Your task to perform on an android device: turn on the 24-hour format for clock Image 0: 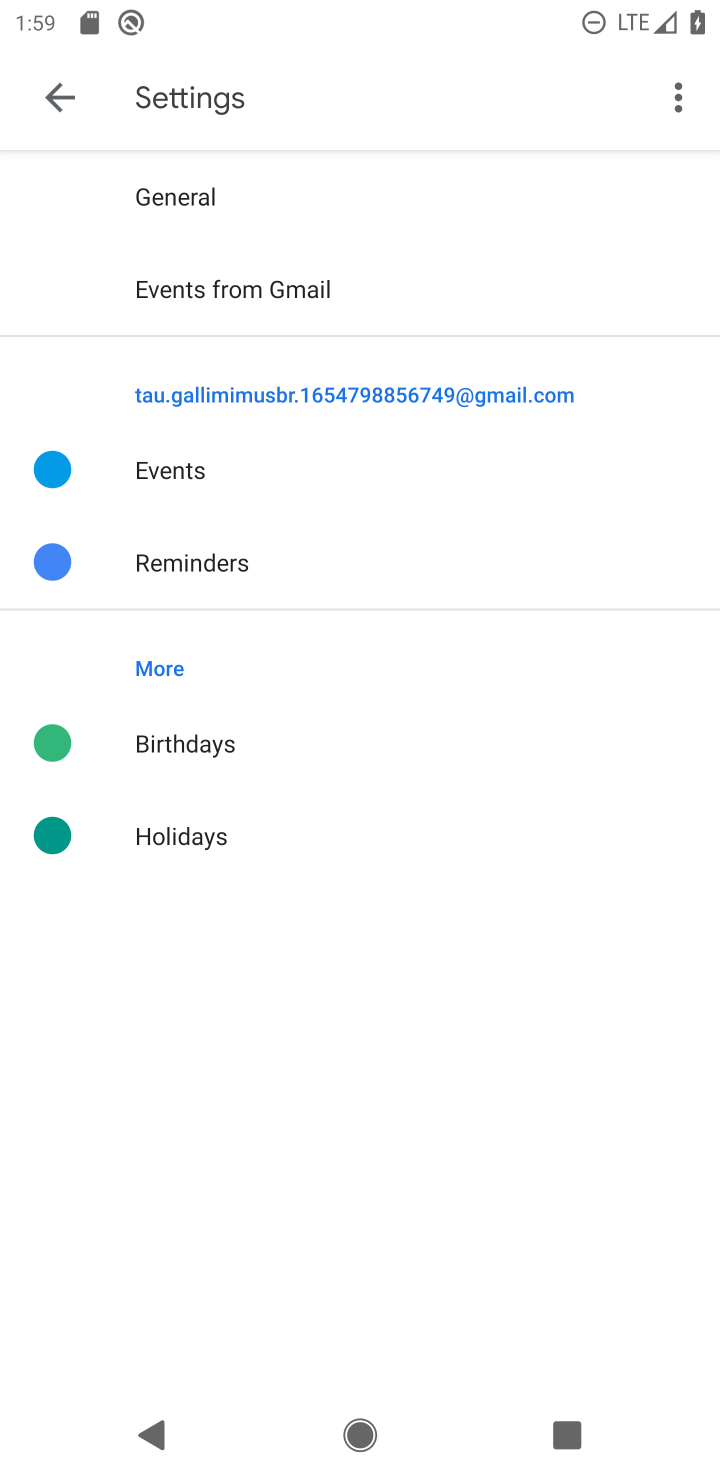
Step 0: press home button
Your task to perform on an android device: turn on the 24-hour format for clock Image 1: 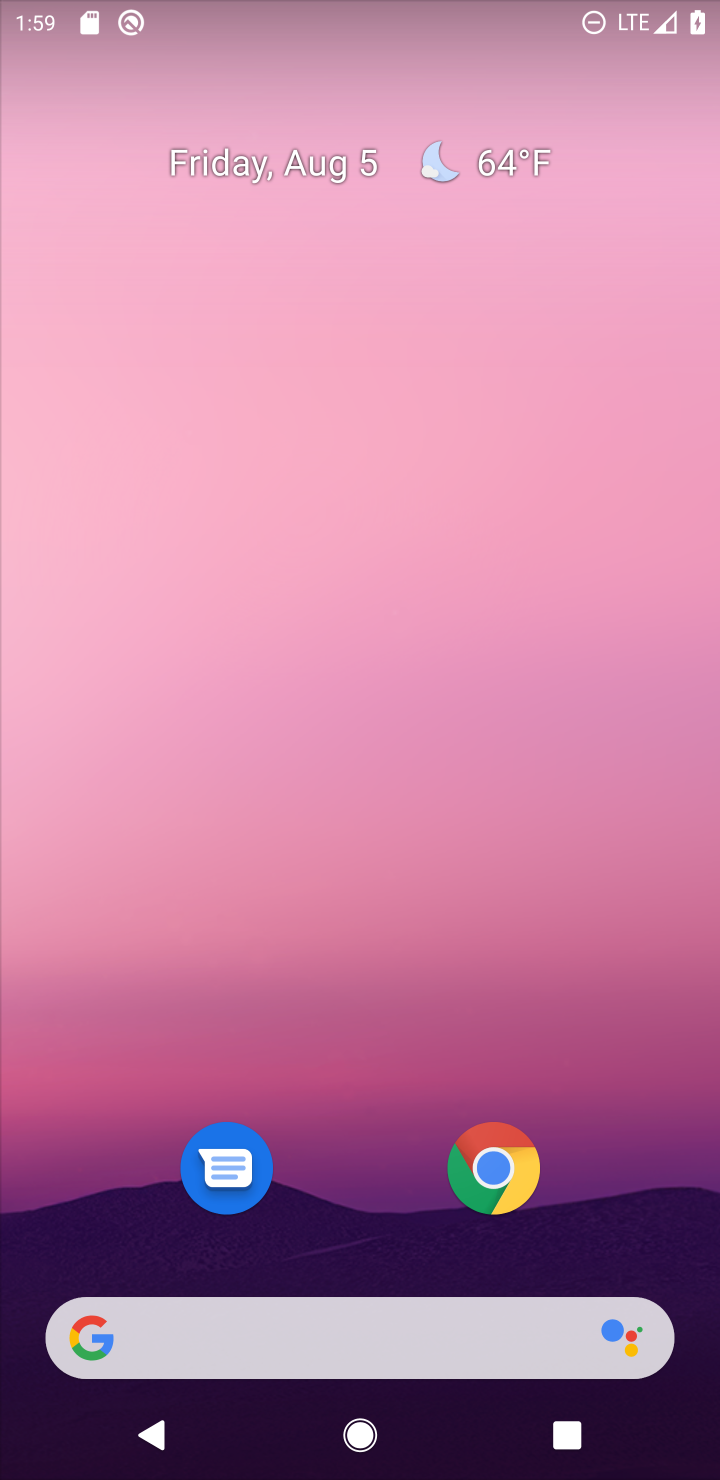
Step 1: drag from (687, 1213) to (270, 37)
Your task to perform on an android device: turn on the 24-hour format for clock Image 2: 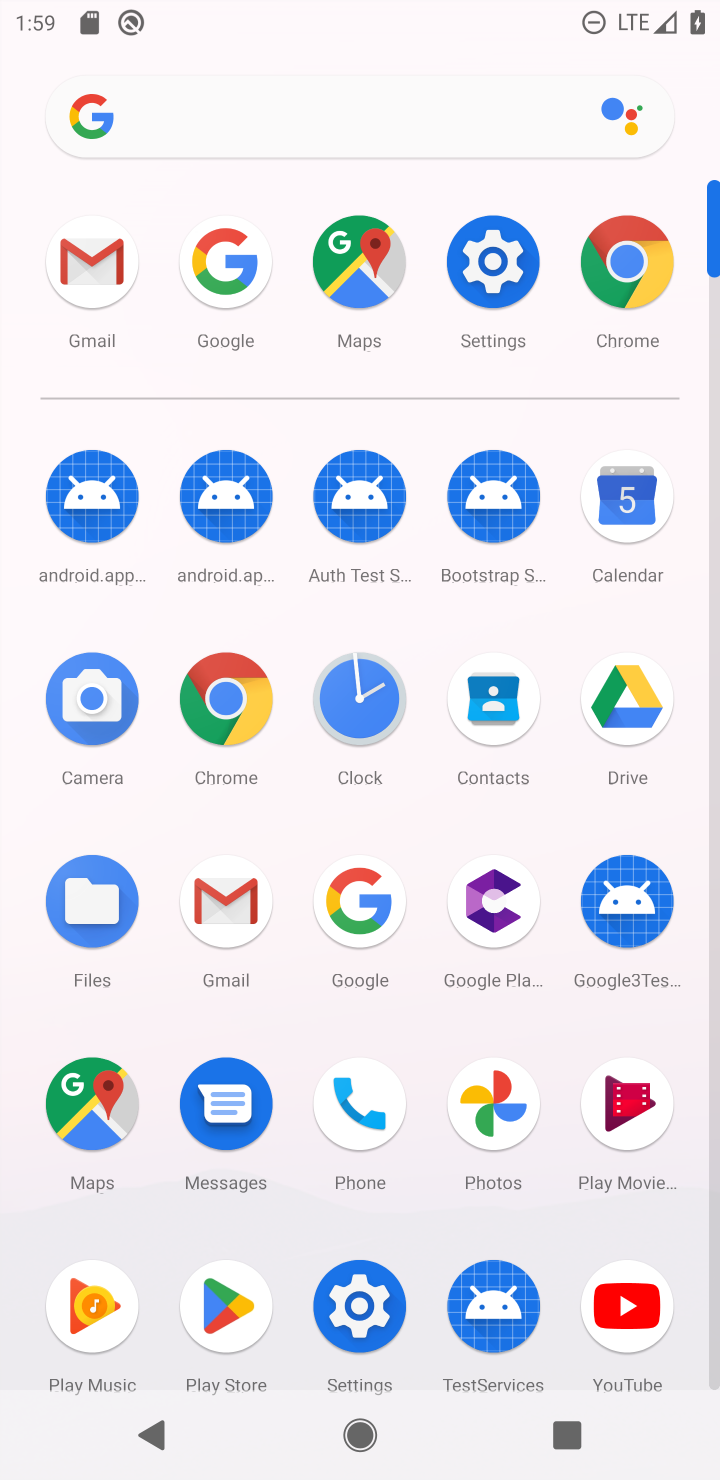
Step 2: click (336, 717)
Your task to perform on an android device: turn on the 24-hour format for clock Image 3: 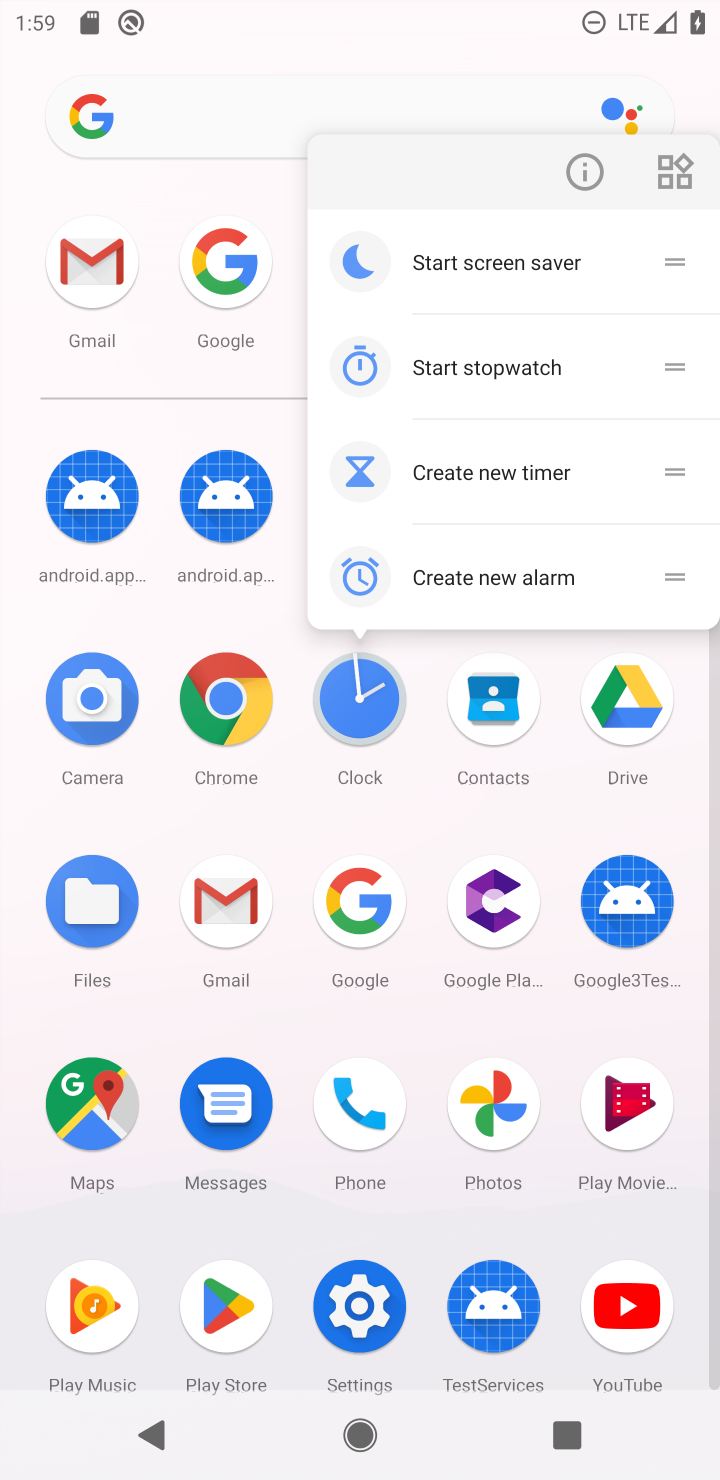
Step 3: click (367, 699)
Your task to perform on an android device: turn on the 24-hour format for clock Image 4: 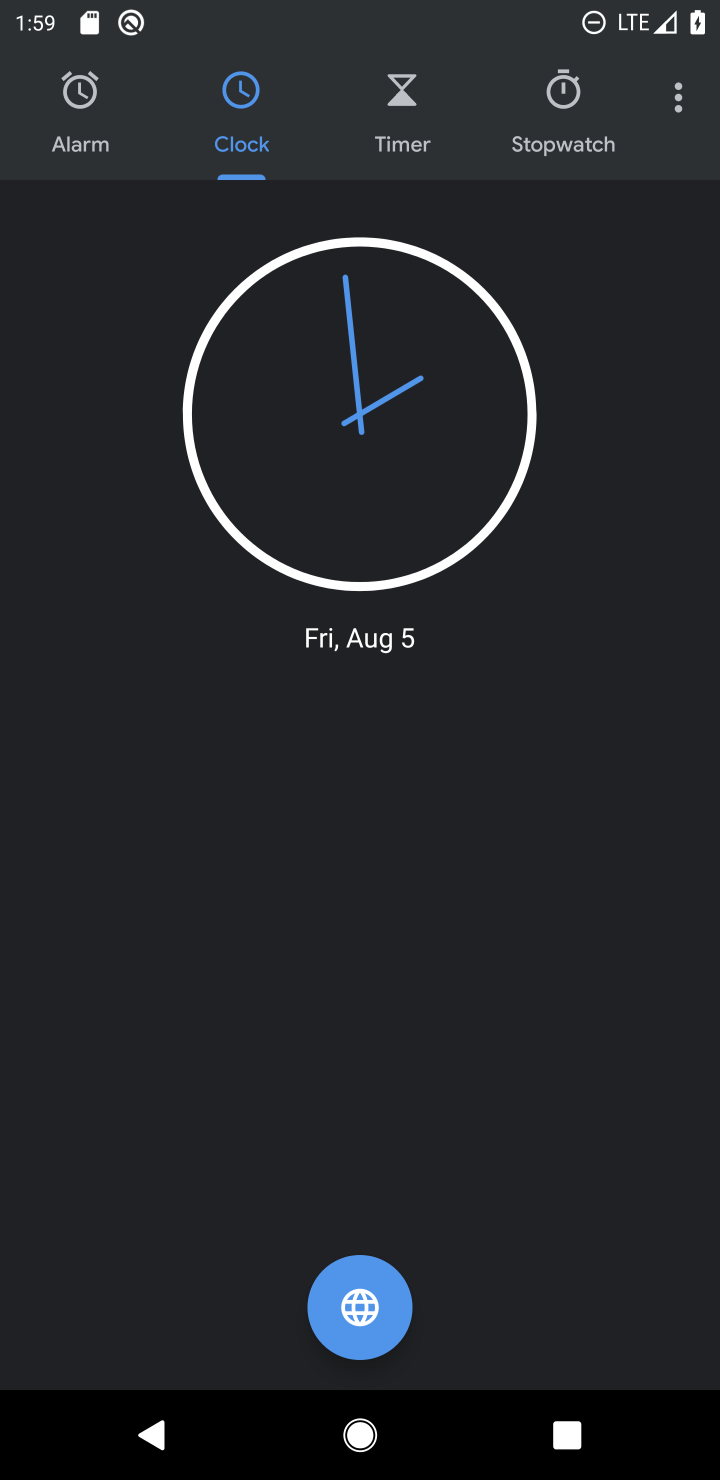
Step 4: click (682, 94)
Your task to perform on an android device: turn on the 24-hour format for clock Image 5: 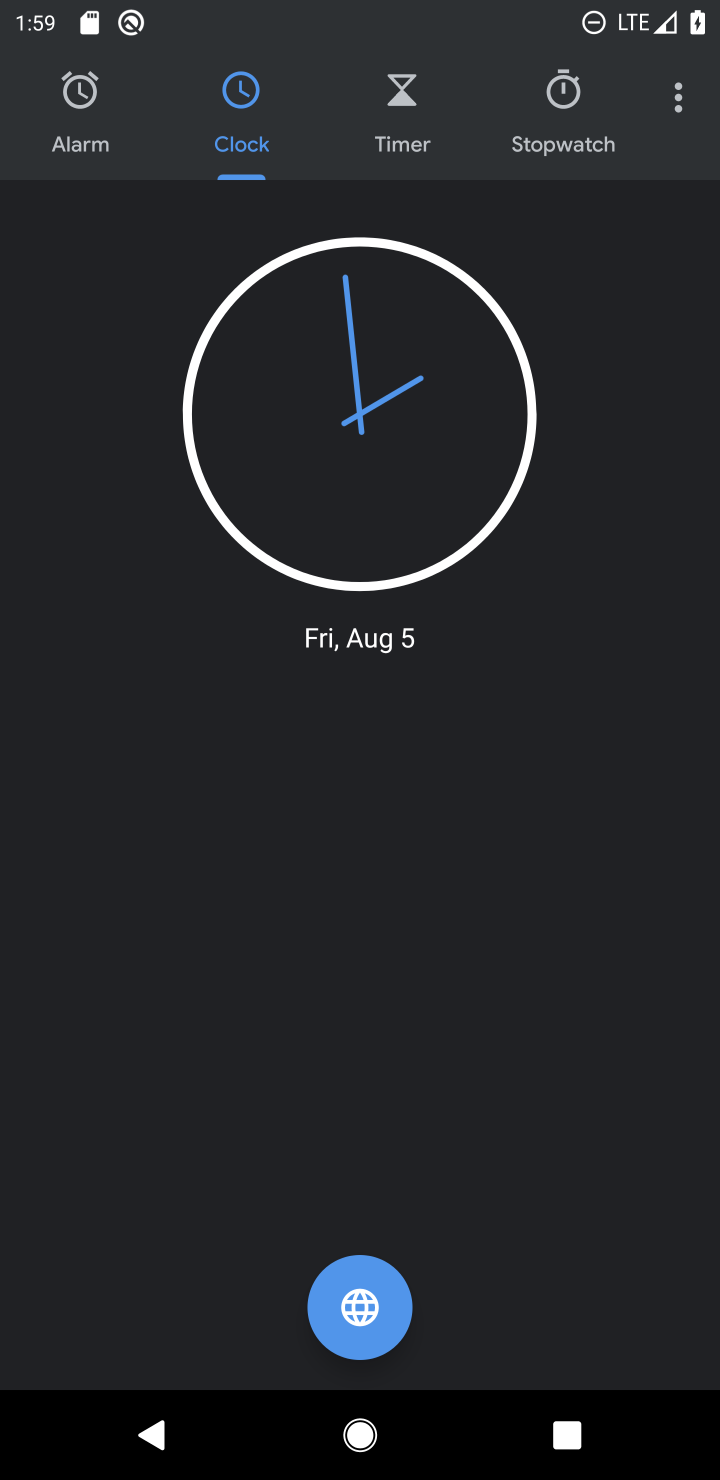
Step 5: click (662, 98)
Your task to perform on an android device: turn on the 24-hour format for clock Image 6: 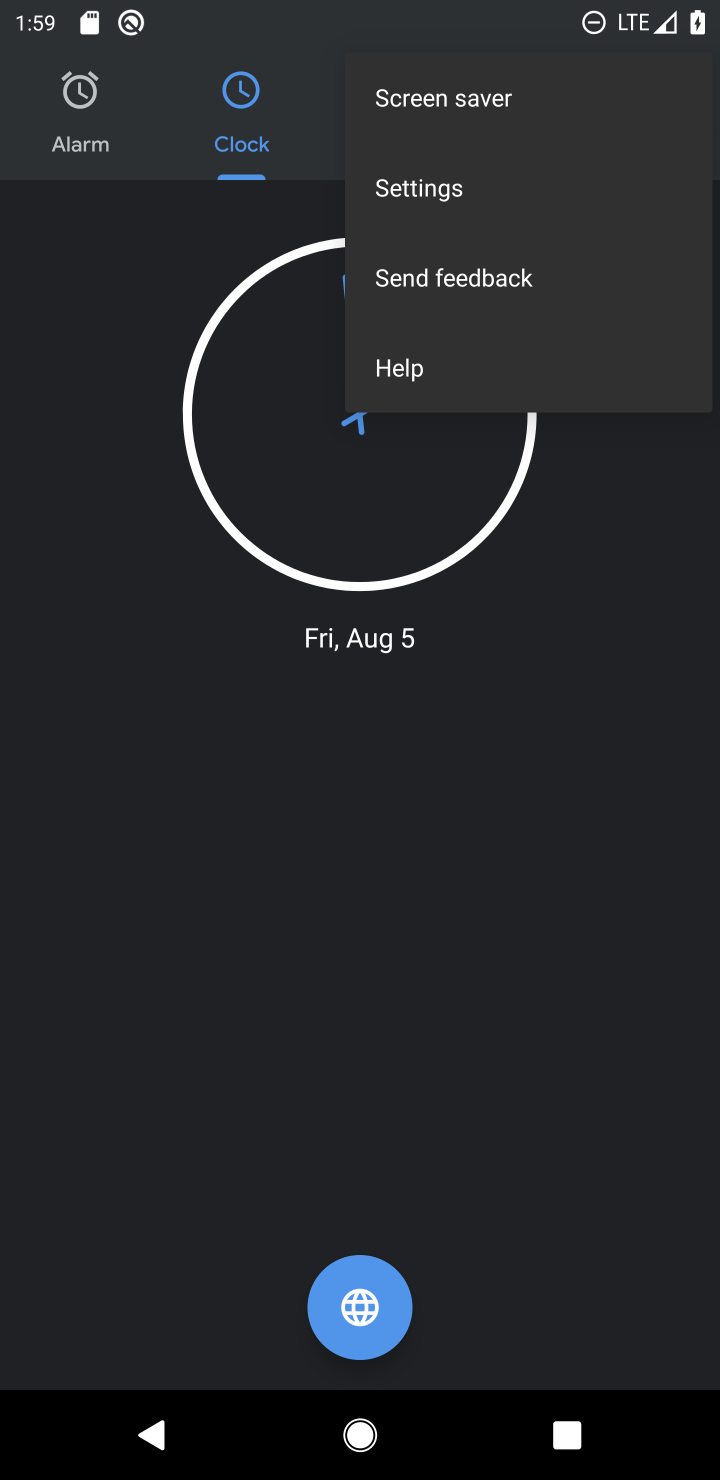
Step 6: click (503, 185)
Your task to perform on an android device: turn on the 24-hour format for clock Image 7: 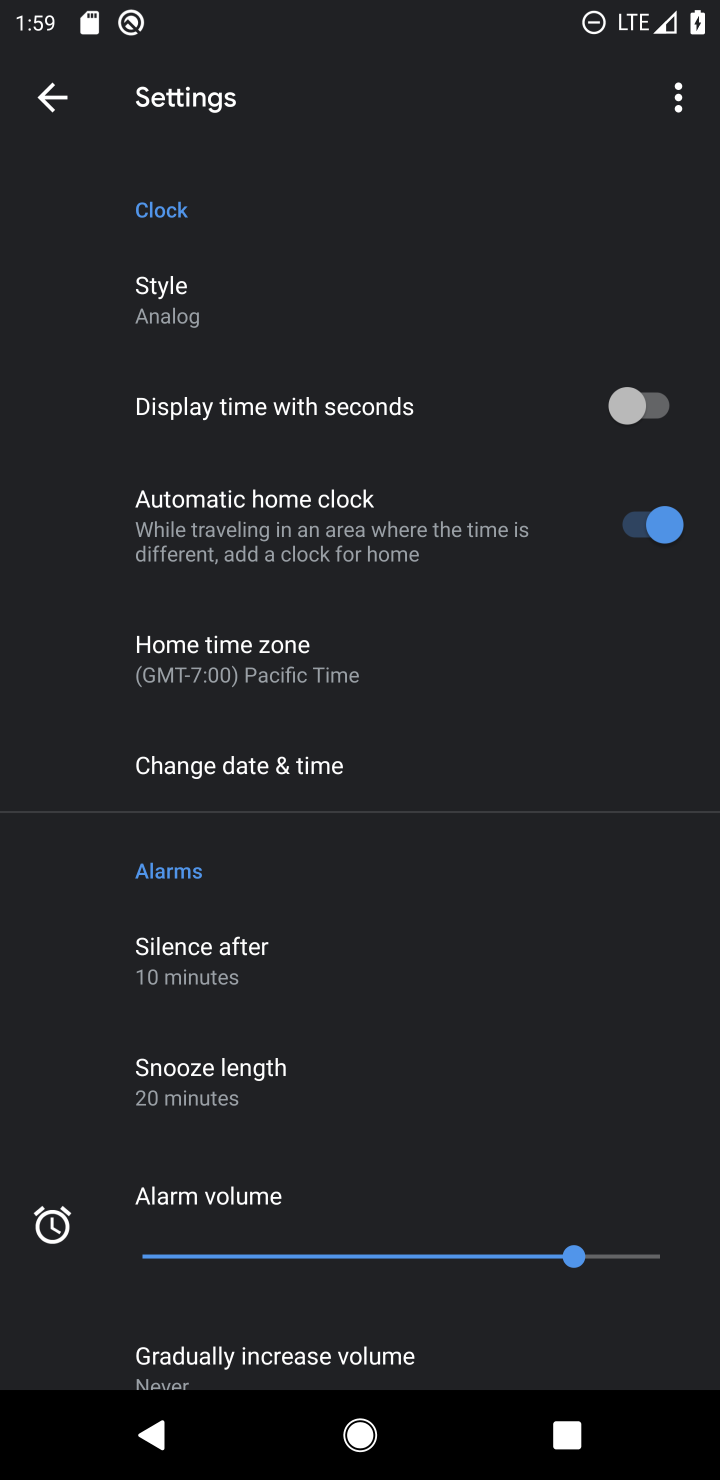
Step 7: click (235, 748)
Your task to perform on an android device: turn on the 24-hour format for clock Image 8: 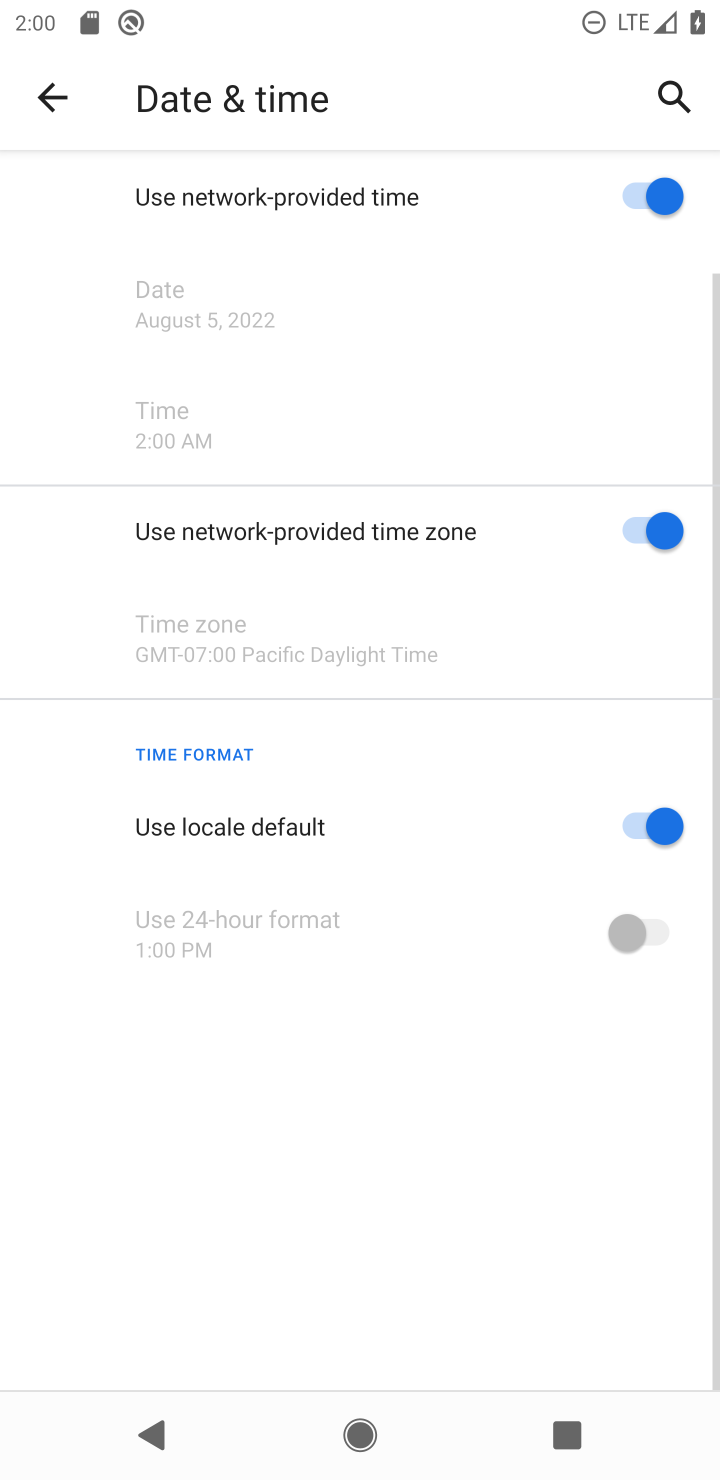
Step 8: task complete